Your task to perform on an android device: check google app version Image 0: 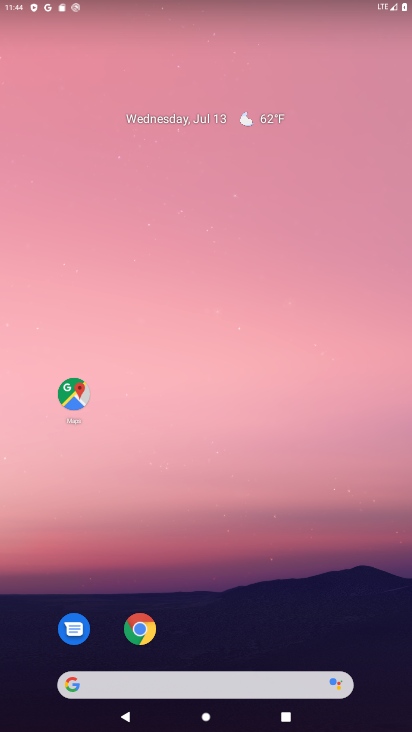
Step 0: click (133, 679)
Your task to perform on an android device: check google app version Image 1: 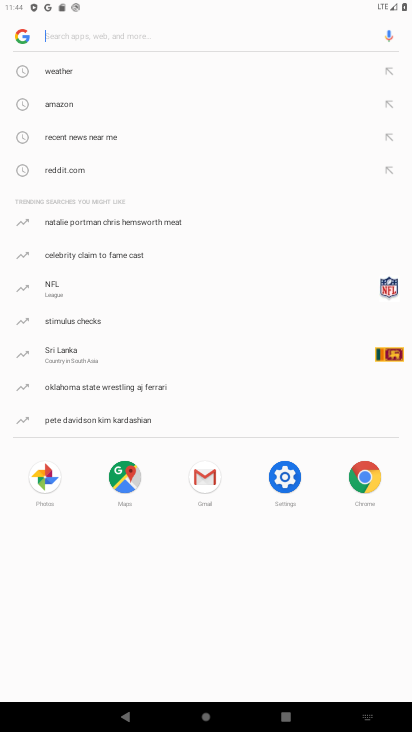
Step 1: click (27, 28)
Your task to perform on an android device: check google app version Image 2: 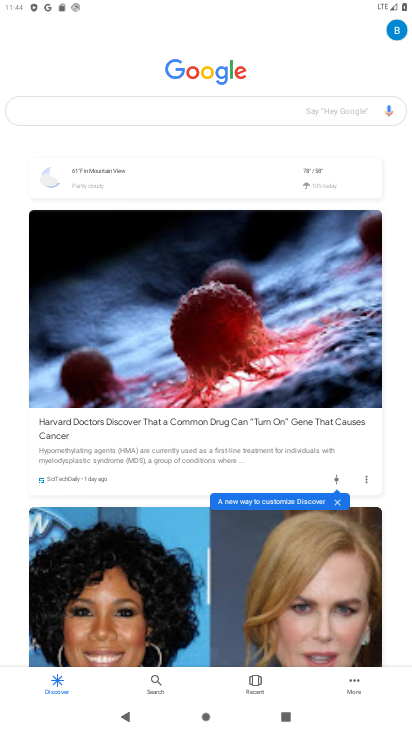
Step 2: click (353, 683)
Your task to perform on an android device: check google app version Image 3: 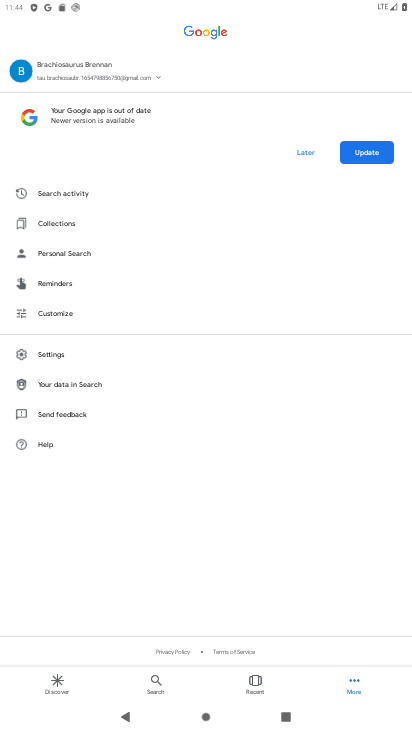
Step 3: click (75, 360)
Your task to perform on an android device: check google app version Image 4: 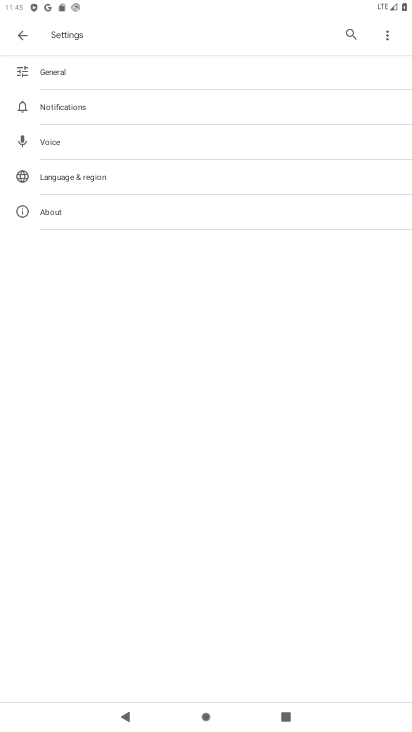
Step 4: click (54, 220)
Your task to perform on an android device: check google app version Image 5: 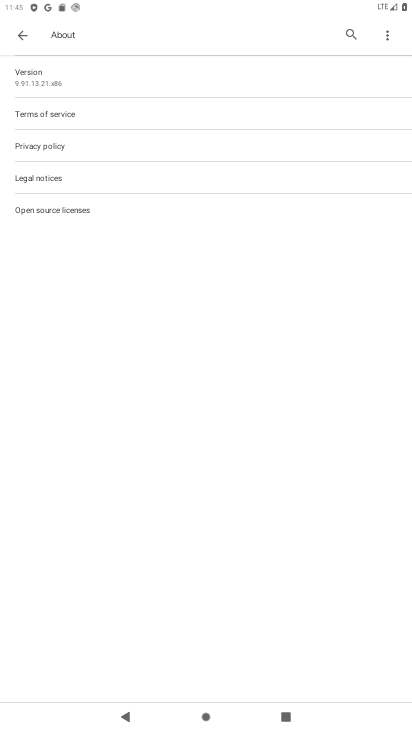
Step 5: task complete